Your task to perform on an android device: delete browsing data in the chrome app Image 0: 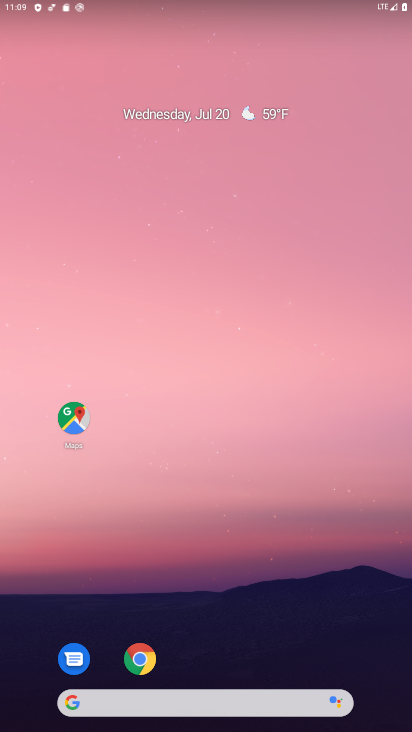
Step 0: drag from (206, 715) to (205, 239)
Your task to perform on an android device: delete browsing data in the chrome app Image 1: 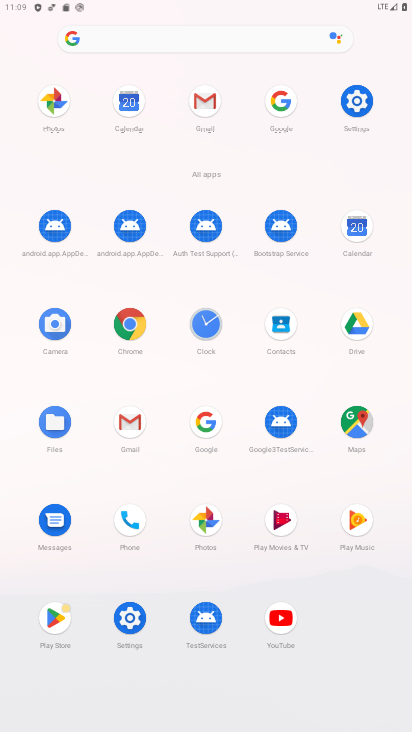
Step 1: click (129, 318)
Your task to perform on an android device: delete browsing data in the chrome app Image 2: 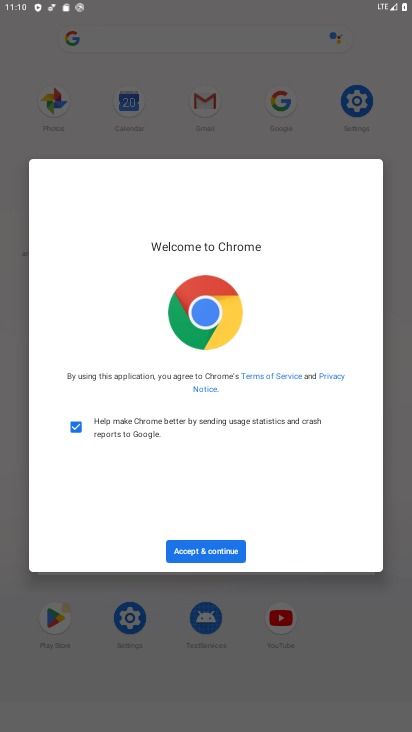
Step 2: click (216, 551)
Your task to perform on an android device: delete browsing data in the chrome app Image 3: 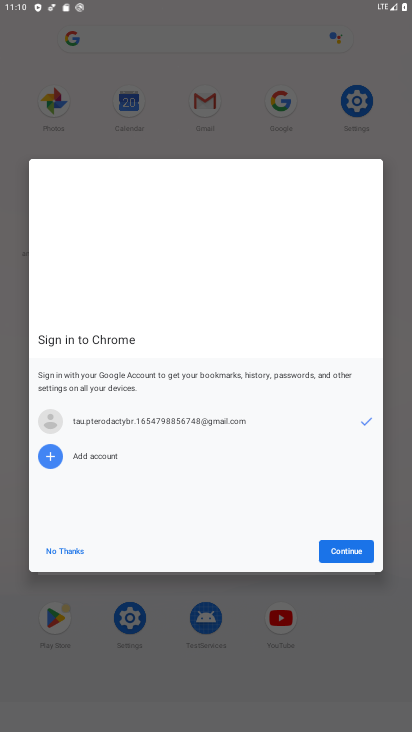
Step 3: click (352, 555)
Your task to perform on an android device: delete browsing data in the chrome app Image 4: 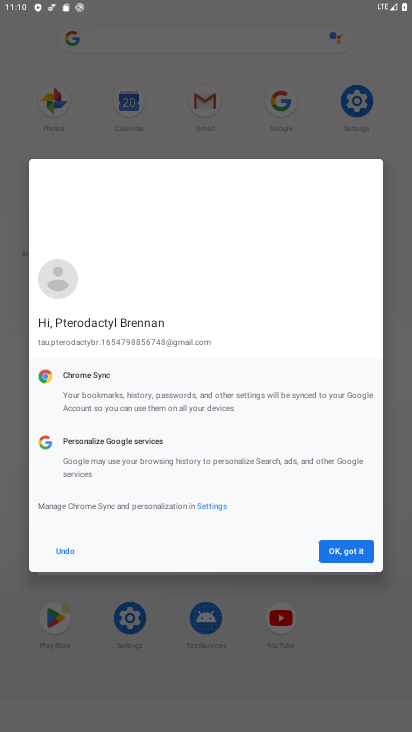
Step 4: click (352, 555)
Your task to perform on an android device: delete browsing data in the chrome app Image 5: 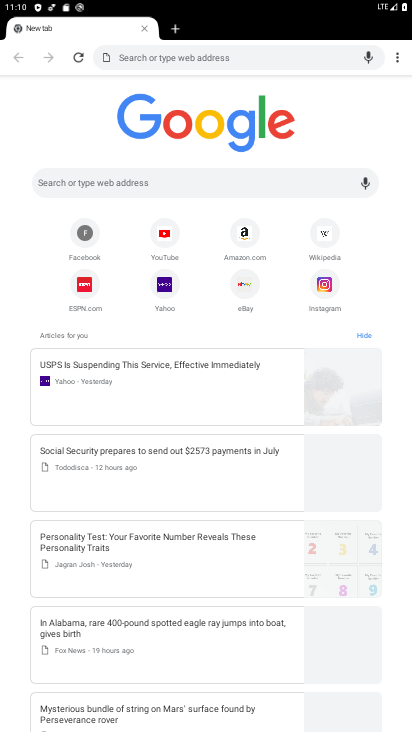
Step 5: click (395, 57)
Your task to perform on an android device: delete browsing data in the chrome app Image 6: 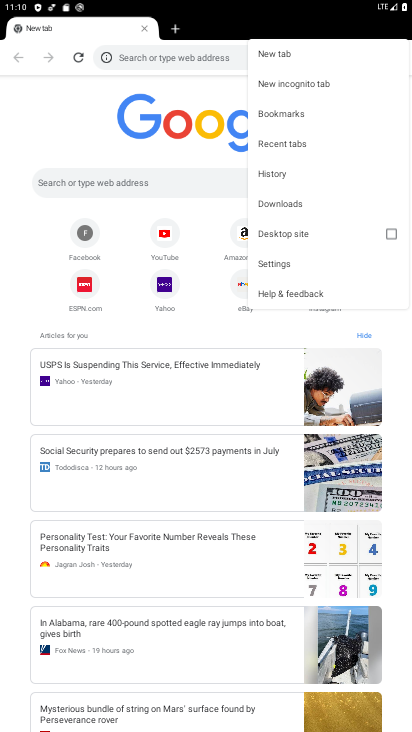
Step 6: click (268, 175)
Your task to perform on an android device: delete browsing data in the chrome app Image 7: 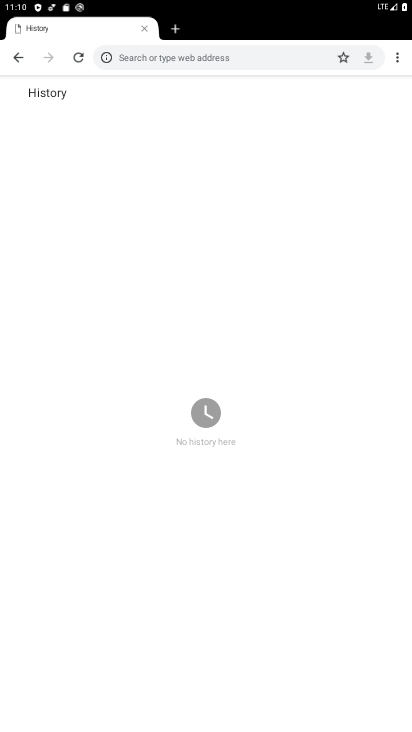
Step 7: task complete